Your task to perform on an android device: turn off data saver in the chrome app Image 0: 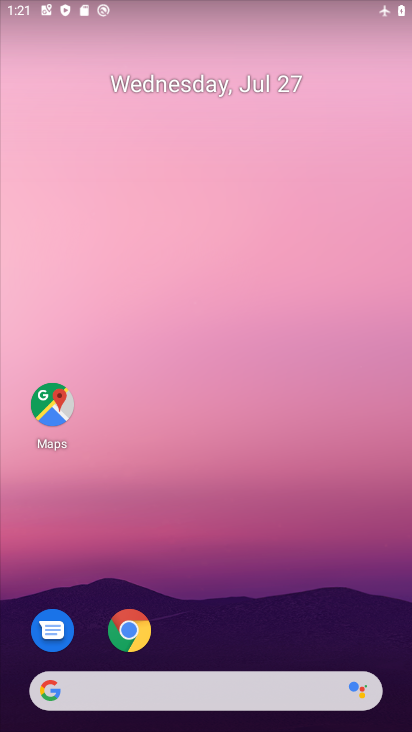
Step 0: click (130, 634)
Your task to perform on an android device: turn off data saver in the chrome app Image 1: 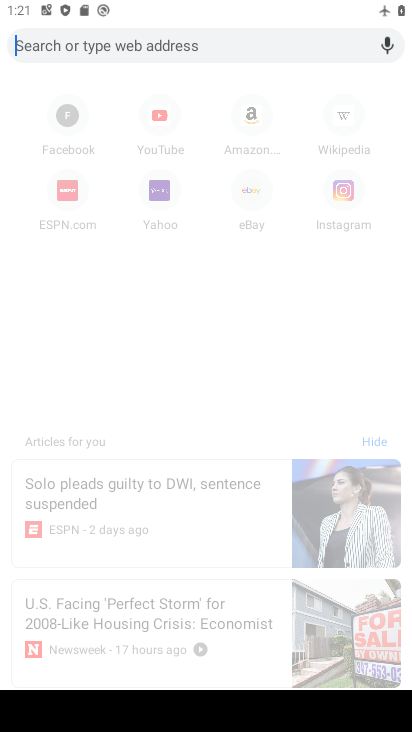
Step 1: task complete